Your task to perform on an android device: See recent photos Image 0: 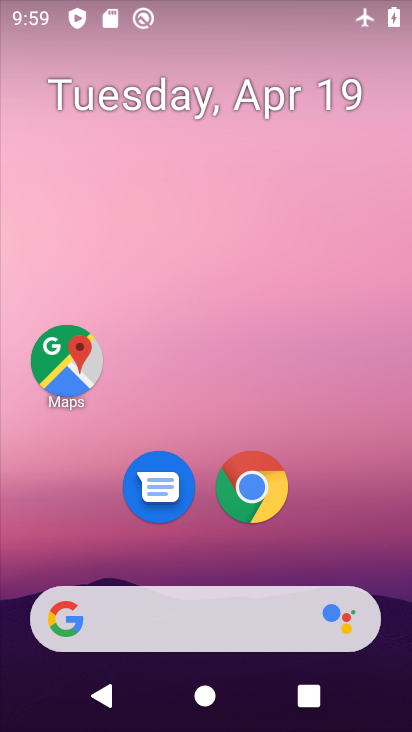
Step 0: drag from (331, 522) to (345, 0)
Your task to perform on an android device: See recent photos Image 1: 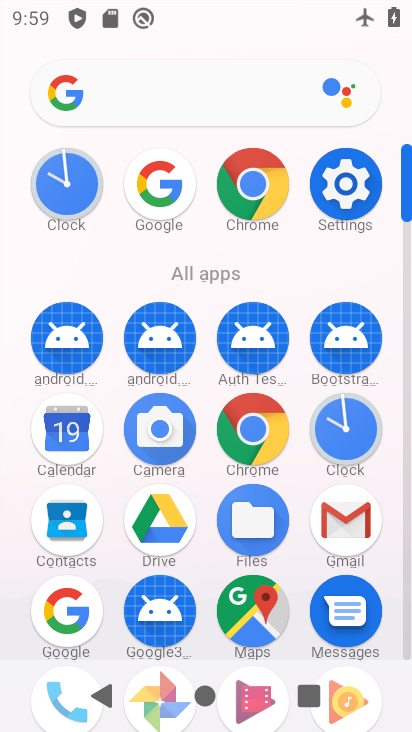
Step 1: drag from (299, 261) to (301, 66)
Your task to perform on an android device: See recent photos Image 2: 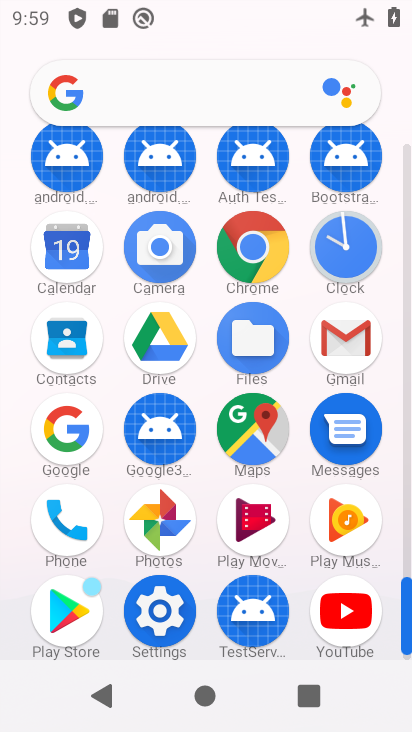
Step 2: click (151, 525)
Your task to perform on an android device: See recent photos Image 3: 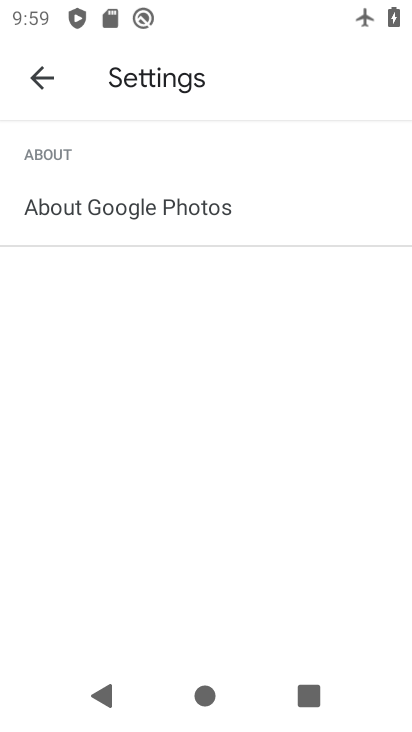
Step 3: click (34, 76)
Your task to perform on an android device: See recent photos Image 4: 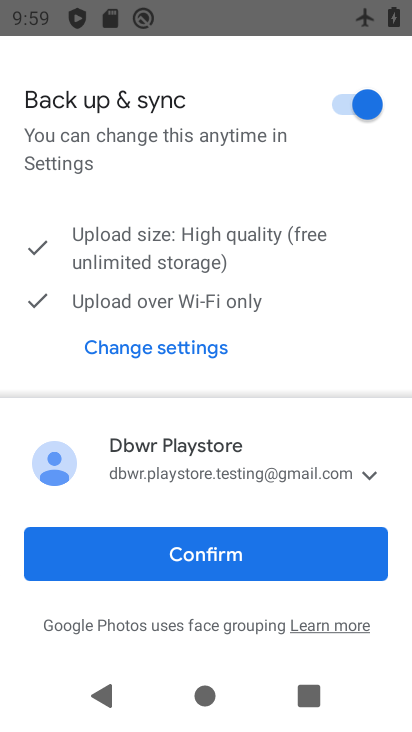
Step 4: click (163, 561)
Your task to perform on an android device: See recent photos Image 5: 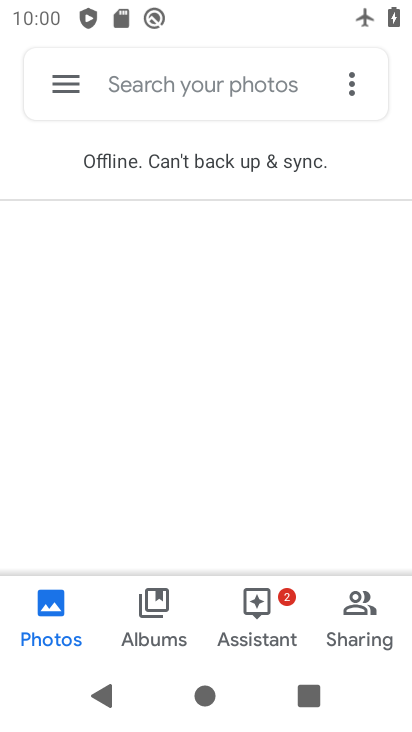
Step 5: task complete